Your task to perform on an android device: delete the emails in spam in the gmail app Image 0: 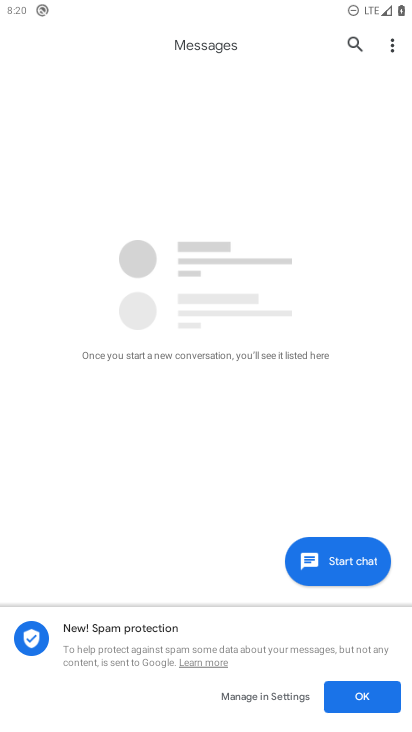
Step 0: press home button
Your task to perform on an android device: delete the emails in spam in the gmail app Image 1: 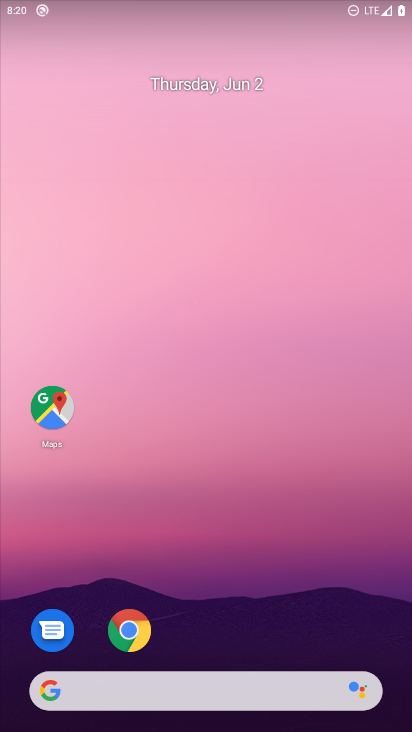
Step 1: drag from (116, 725) to (125, 86)
Your task to perform on an android device: delete the emails in spam in the gmail app Image 2: 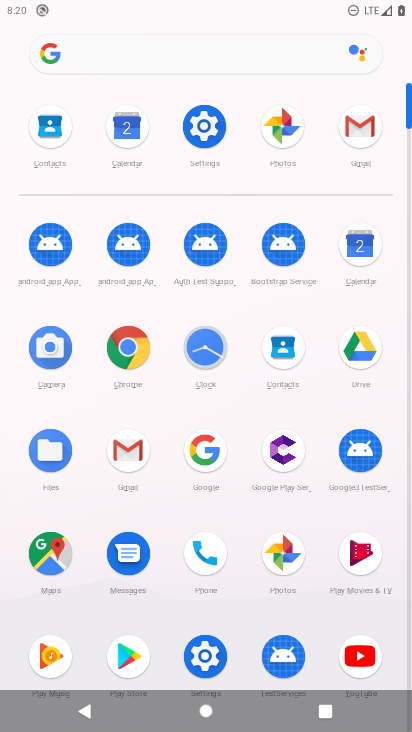
Step 2: click (135, 454)
Your task to perform on an android device: delete the emails in spam in the gmail app Image 3: 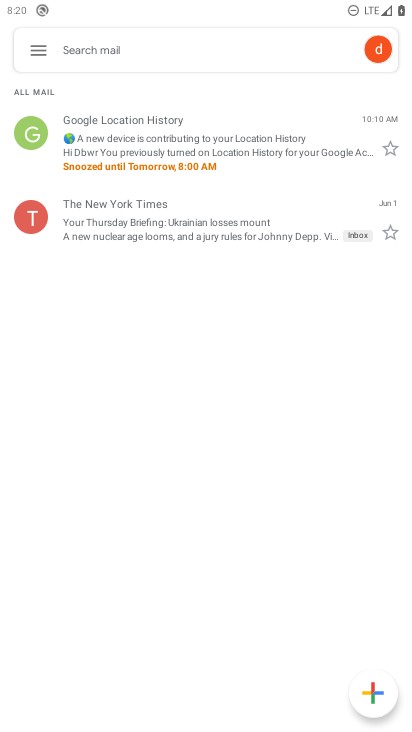
Step 3: click (51, 53)
Your task to perform on an android device: delete the emails in spam in the gmail app Image 4: 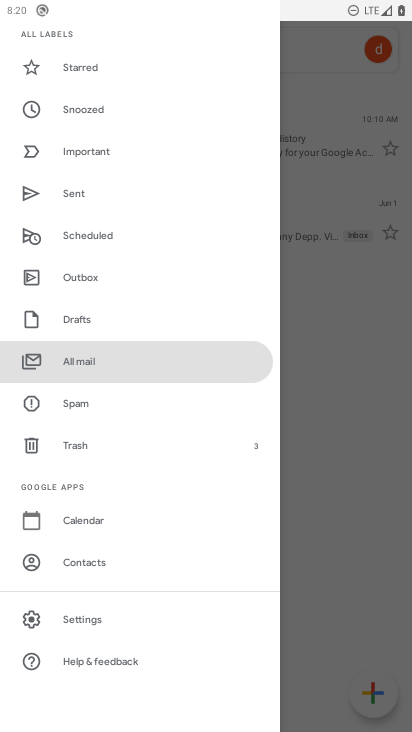
Step 4: click (105, 405)
Your task to perform on an android device: delete the emails in spam in the gmail app Image 5: 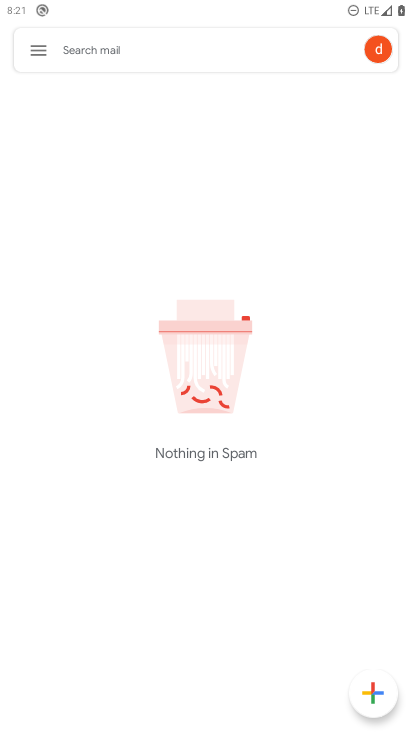
Step 5: task complete